Your task to perform on an android device: Go to calendar. Show me events next week Image 0: 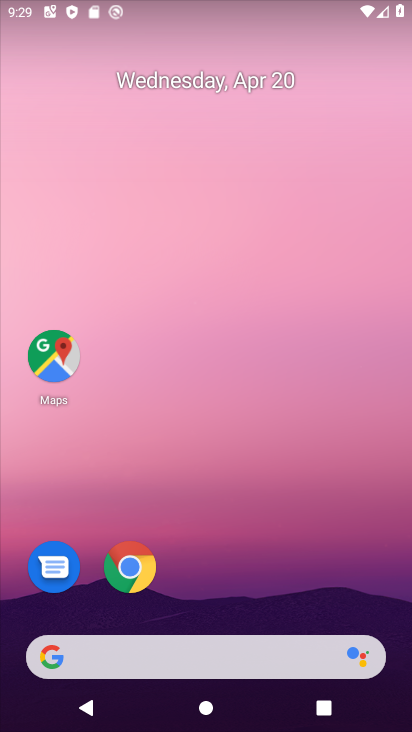
Step 0: drag from (223, 580) to (259, 268)
Your task to perform on an android device: Go to calendar. Show me events next week Image 1: 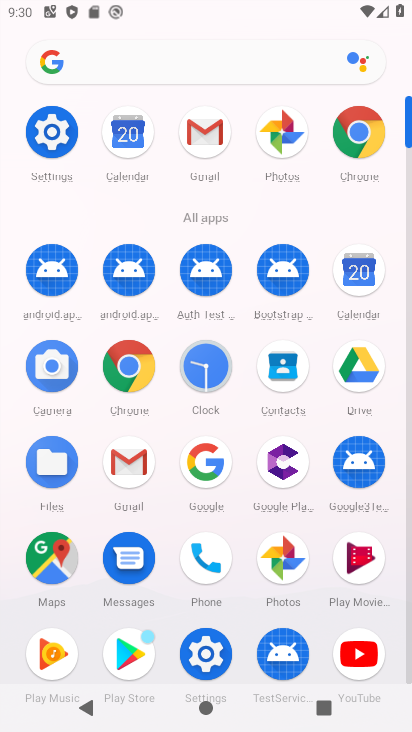
Step 1: click (358, 272)
Your task to perform on an android device: Go to calendar. Show me events next week Image 2: 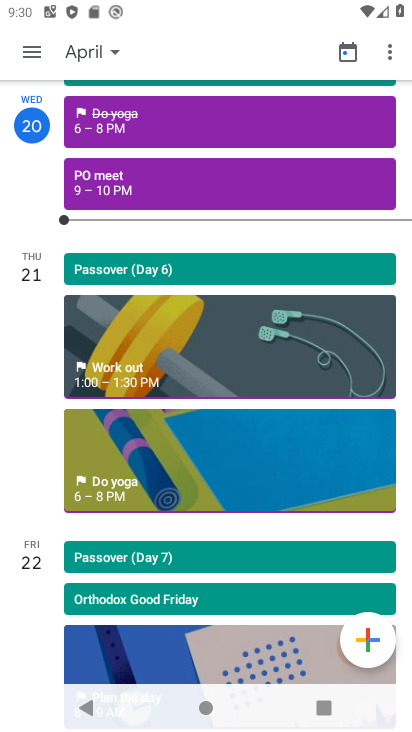
Step 2: click (35, 55)
Your task to perform on an android device: Go to calendar. Show me events next week Image 3: 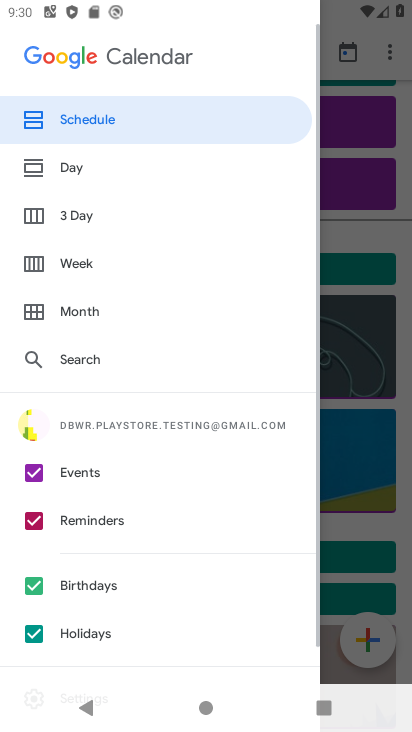
Step 3: click (103, 315)
Your task to perform on an android device: Go to calendar. Show me events next week Image 4: 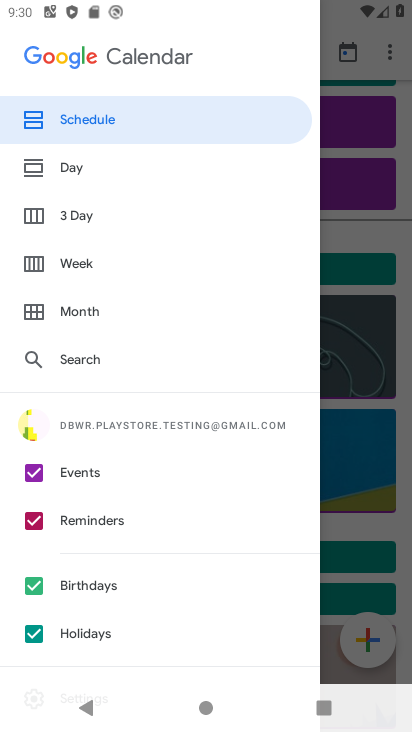
Step 4: click (103, 309)
Your task to perform on an android device: Go to calendar. Show me events next week Image 5: 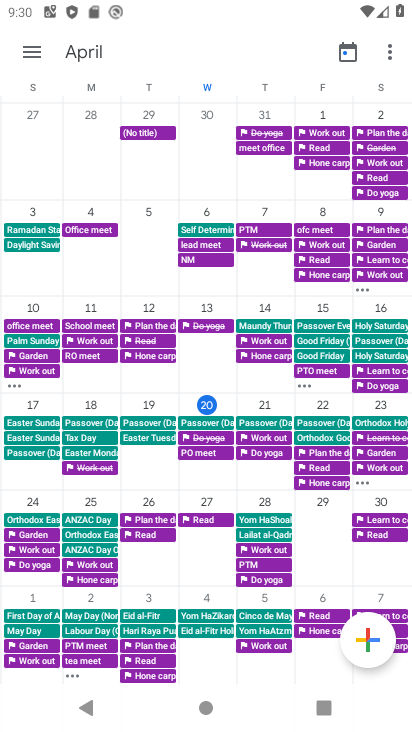
Step 5: click (275, 516)
Your task to perform on an android device: Go to calendar. Show me events next week Image 6: 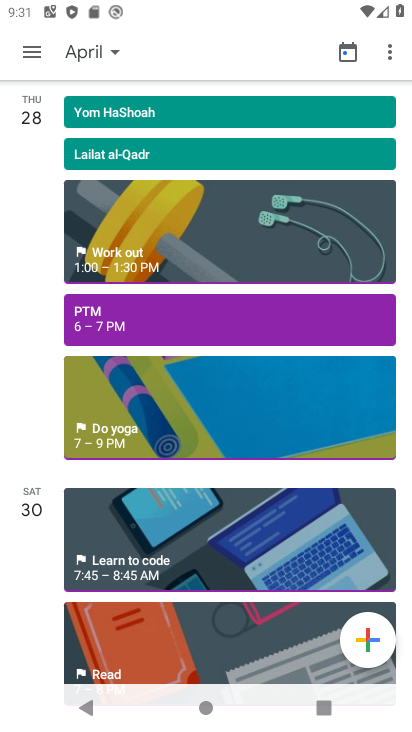
Step 6: task complete